Your task to perform on an android device: Open the web browser Image 0: 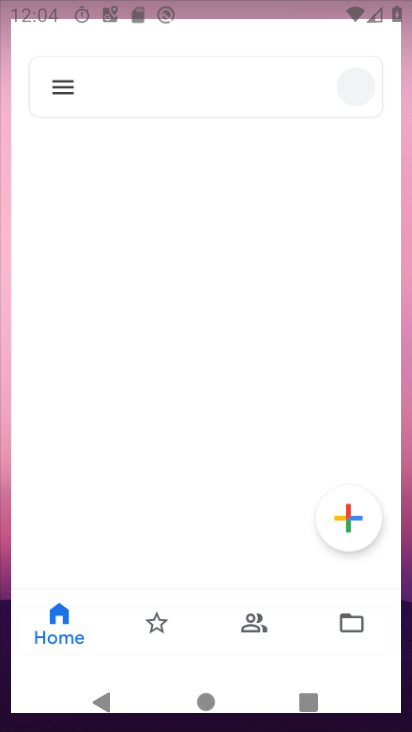
Step 0: click (262, 531)
Your task to perform on an android device: Open the web browser Image 1: 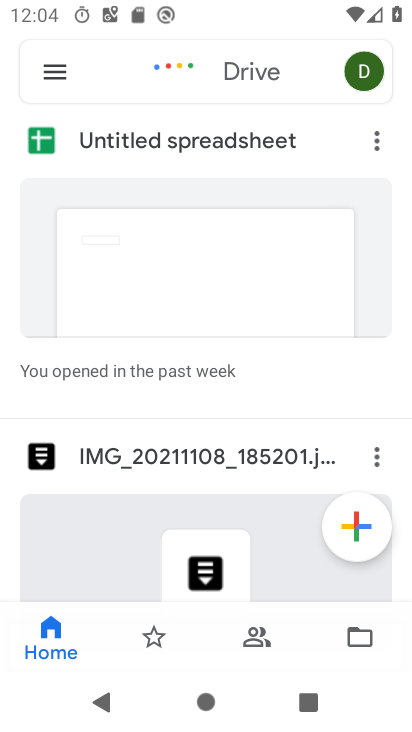
Step 1: press home button
Your task to perform on an android device: Open the web browser Image 2: 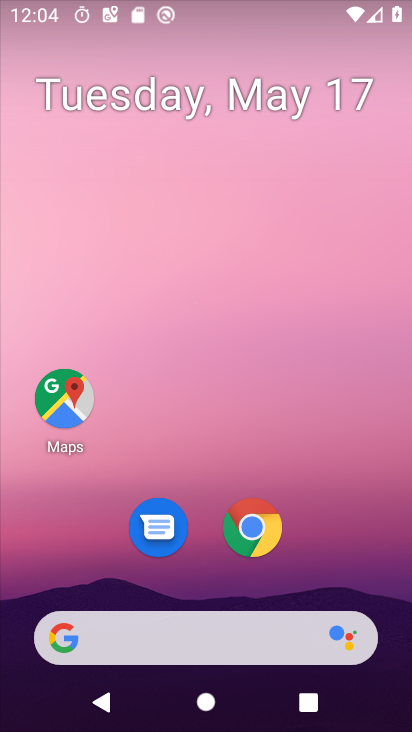
Step 2: click (258, 524)
Your task to perform on an android device: Open the web browser Image 3: 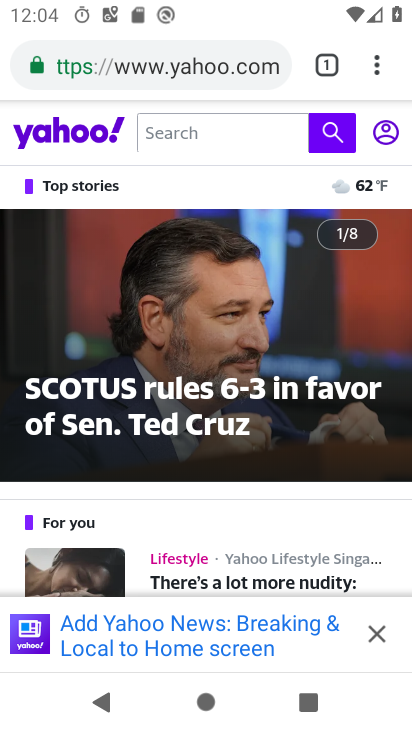
Step 3: task complete